Your task to perform on an android device: Open internet settings Image 0: 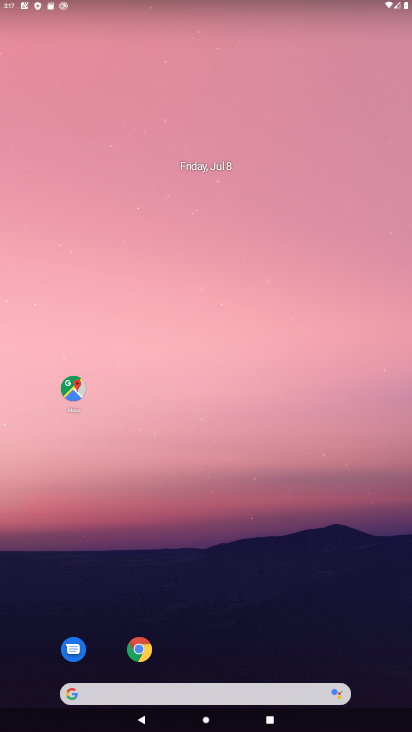
Step 0: drag from (209, 651) to (186, 186)
Your task to perform on an android device: Open internet settings Image 1: 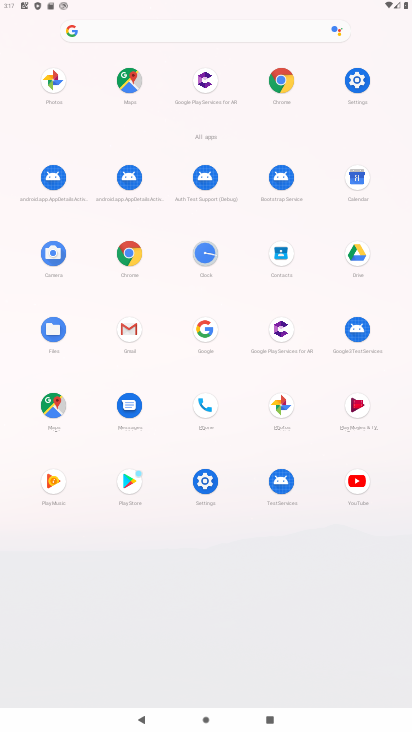
Step 1: click (358, 87)
Your task to perform on an android device: Open internet settings Image 2: 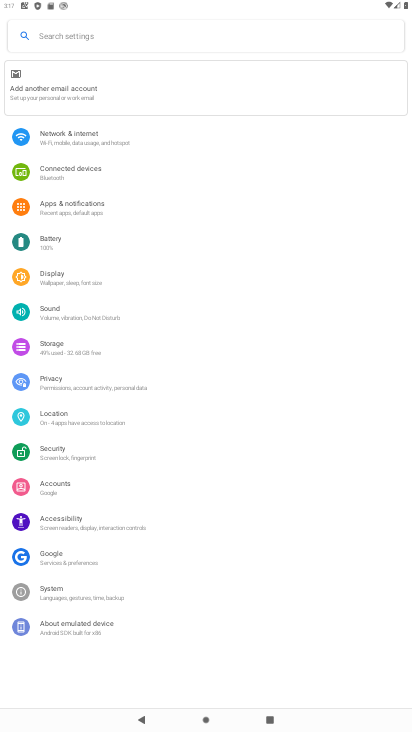
Step 2: click (118, 130)
Your task to perform on an android device: Open internet settings Image 3: 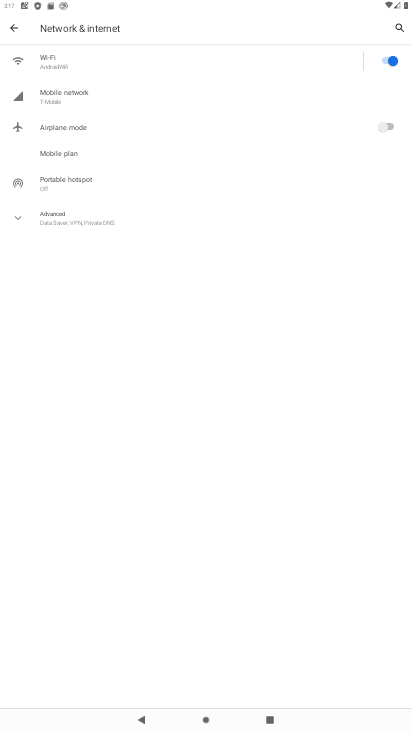
Step 3: click (69, 225)
Your task to perform on an android device: Open internet settings Image 4: 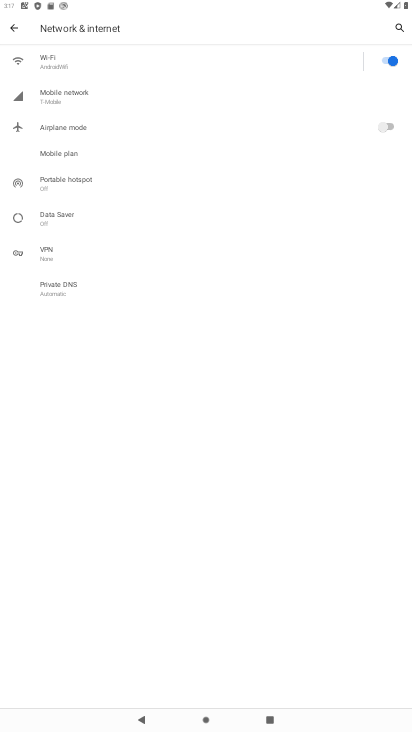
Step 4: task complete